Your task to perform on an android device: Do I have any events tomorrow? Image 0: 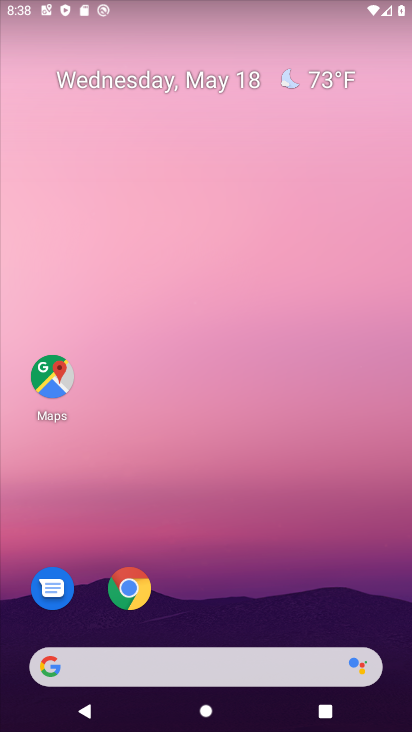
Step 0: drag from (301, 596) to (271, 99)
Your task to perform on an android device: Do I have any events tomorrow? Image 1: 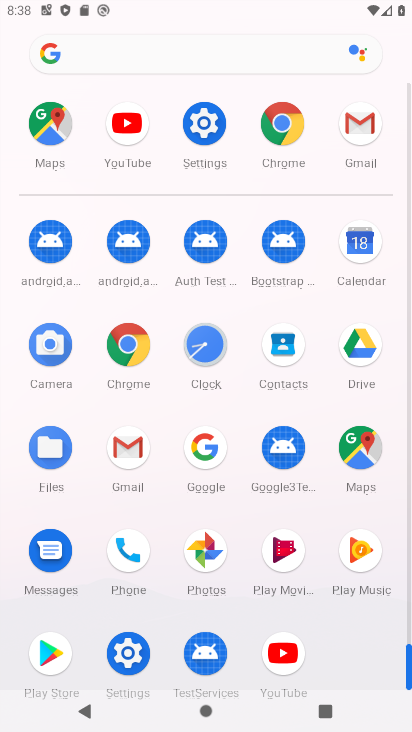
Step 1: click (356, 247)
Your task to perform on an android device: Do I have any events tomorrow? Image 2: 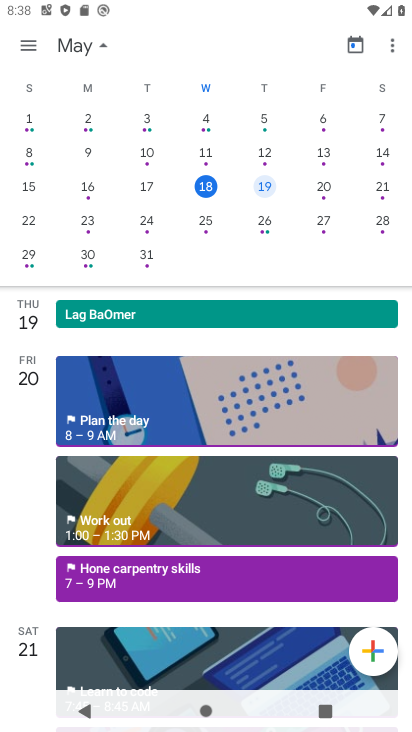
Step 2: click (269, 189)
Your task to perform on an android device: Do I have any events tomorrow? Image 3: 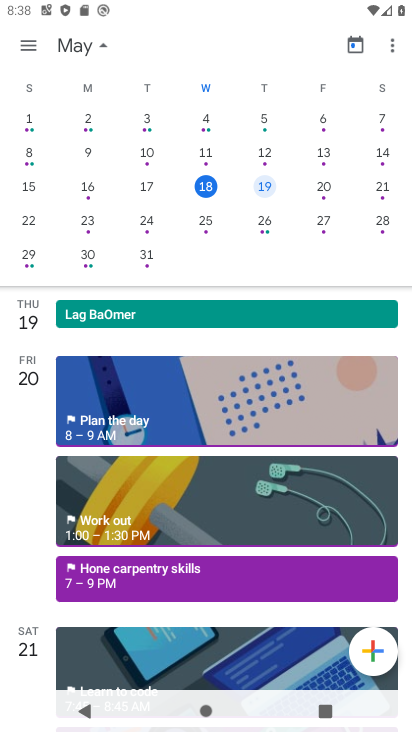
Step 3: task complete